Your task to perform on an android device: open app "Microsoft Authenticator" (install if not already installed) Image 0: 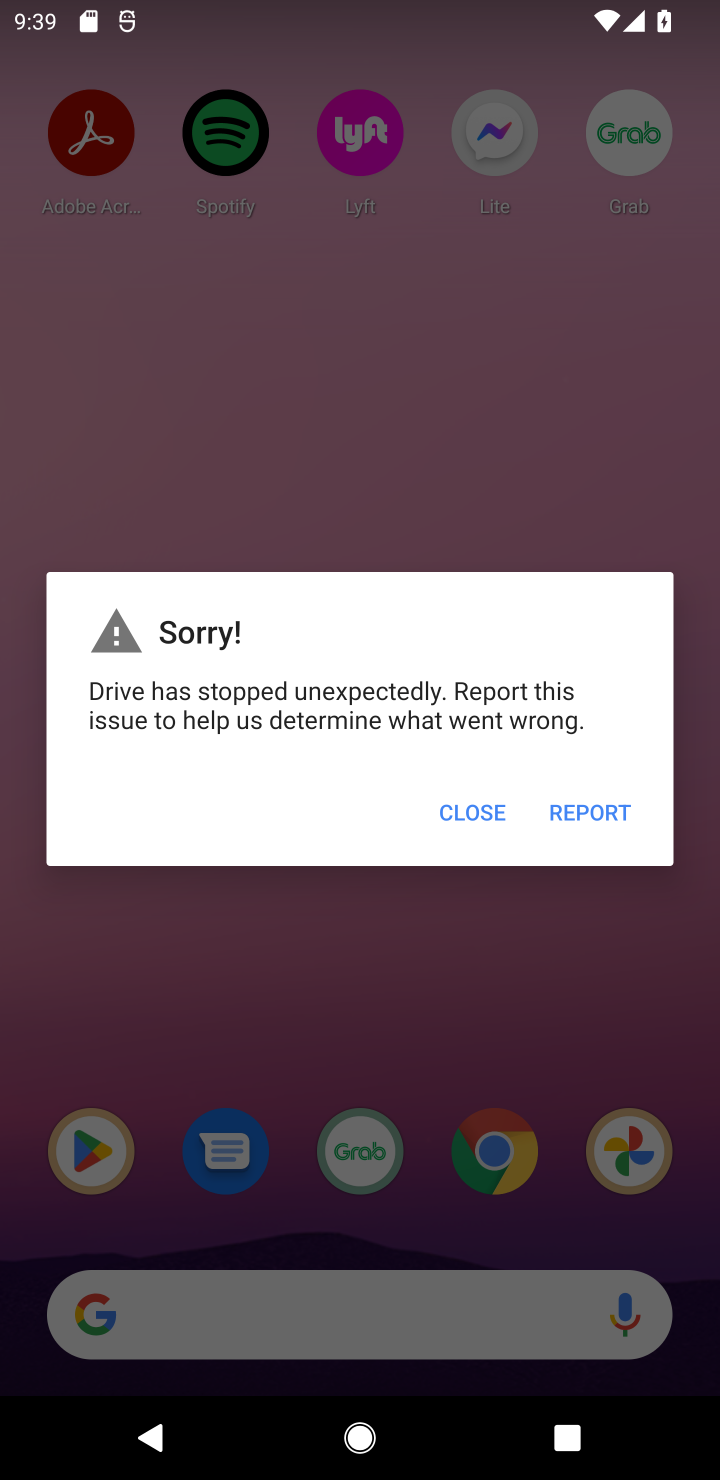
Step 0: press home button
Your task to perform on an android device: open app "Microsoft Authenticator" (install if not already installed) Image 1: 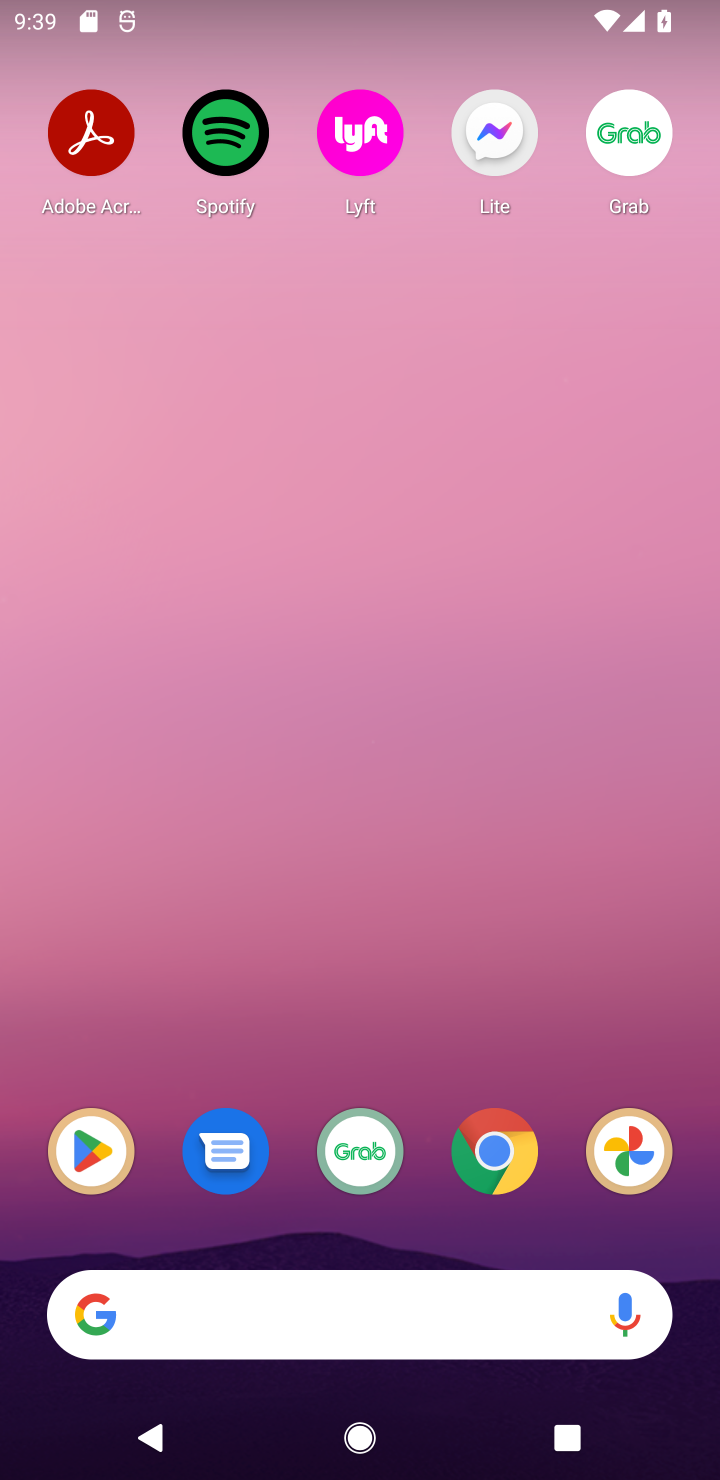
Step 1: drag from (479, 1265) to (473, 617)
Your task to perform on an android device: open app "Microsoft Authenticator" (install if not already installed) Image 2: 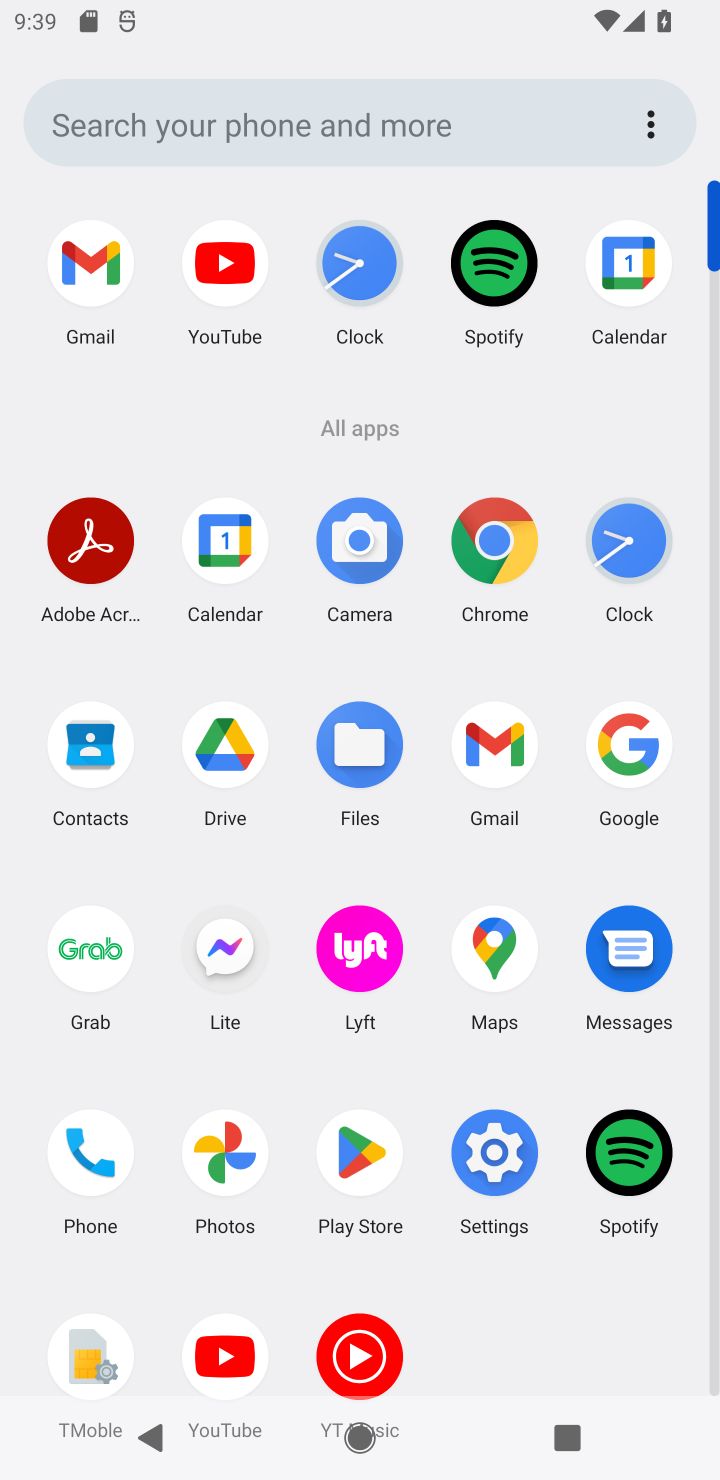
Step 2: click (346, 1164)
Your task to perform on an android device: open app "Microsoft Authenticator" (install if not already installed) Image 3: 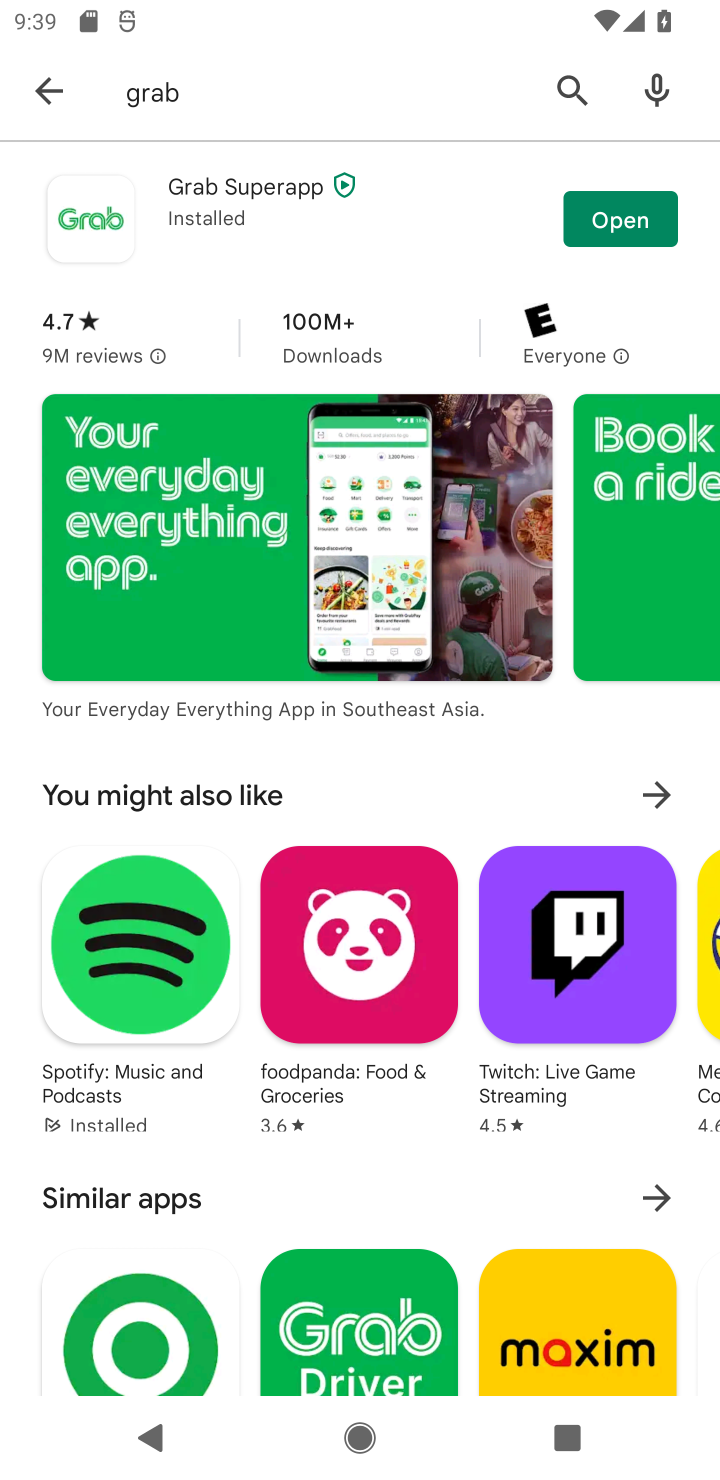
Step 3: click (558, 104)
Your task to perform on an android device: open app "Microsoft Authenticator" (install if not already installed) Image 4: 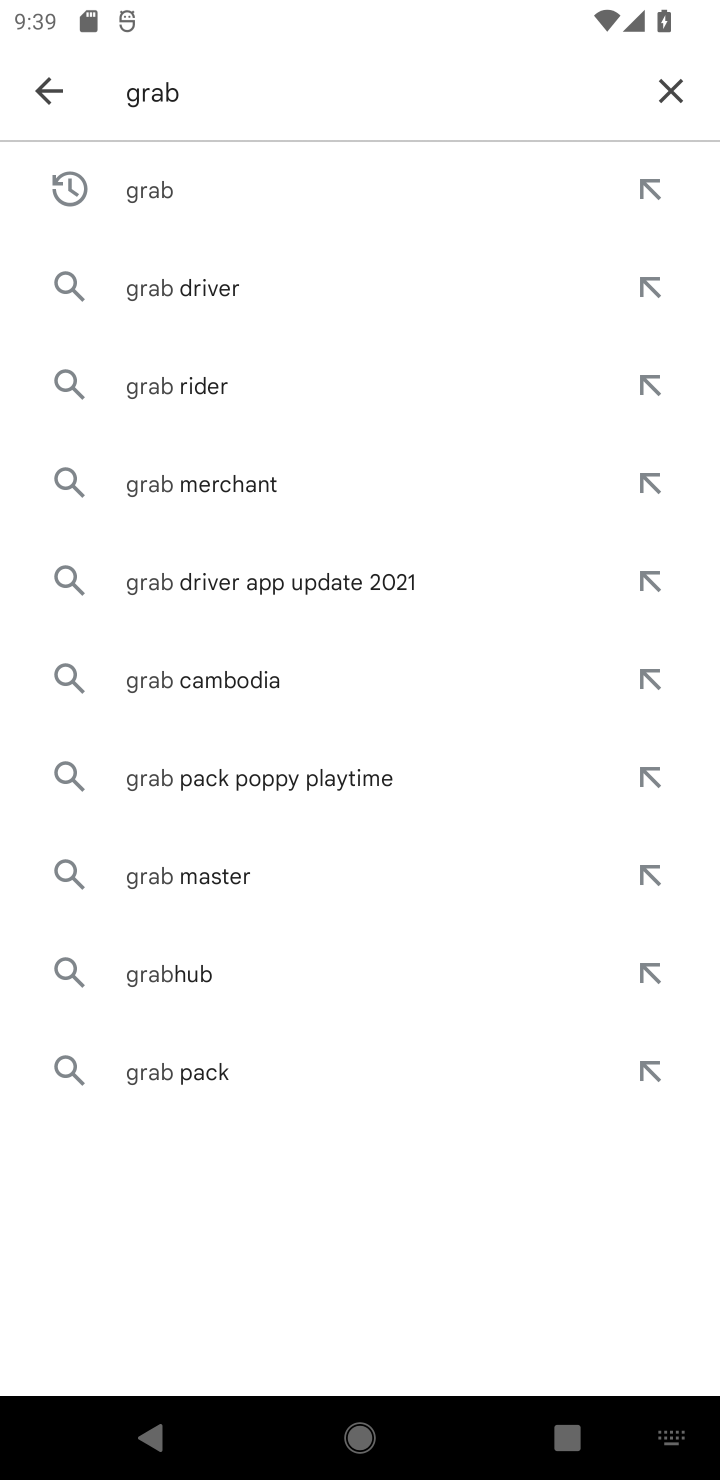
Step 4: click (655, 107)
Your task to perform on an android device: open app "Microsoft Authenticator" (install if not already installed) Image 5: 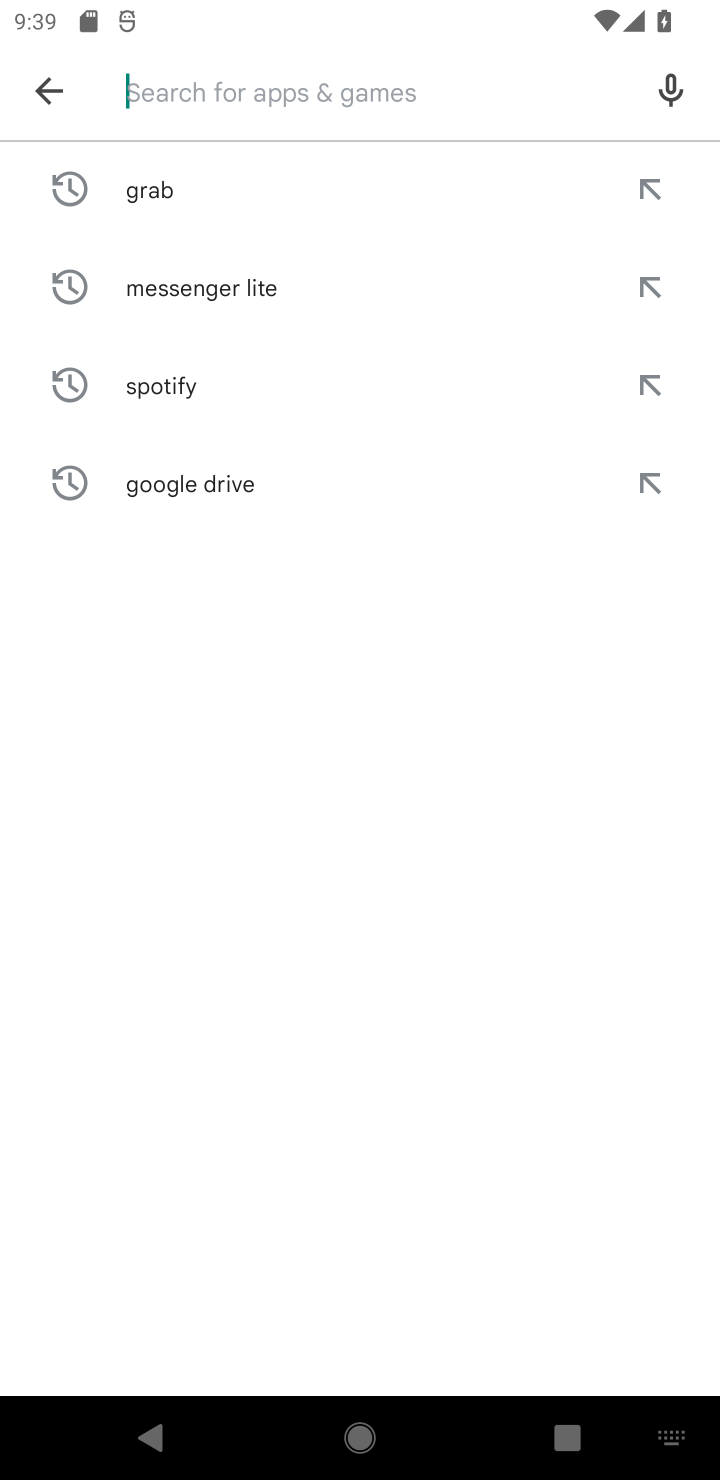
Step 5: type "Microsoft Authenticator"
Your task to perform on an android device: open app "Microsoft Authenticator" (install if not already installed) Image 6: 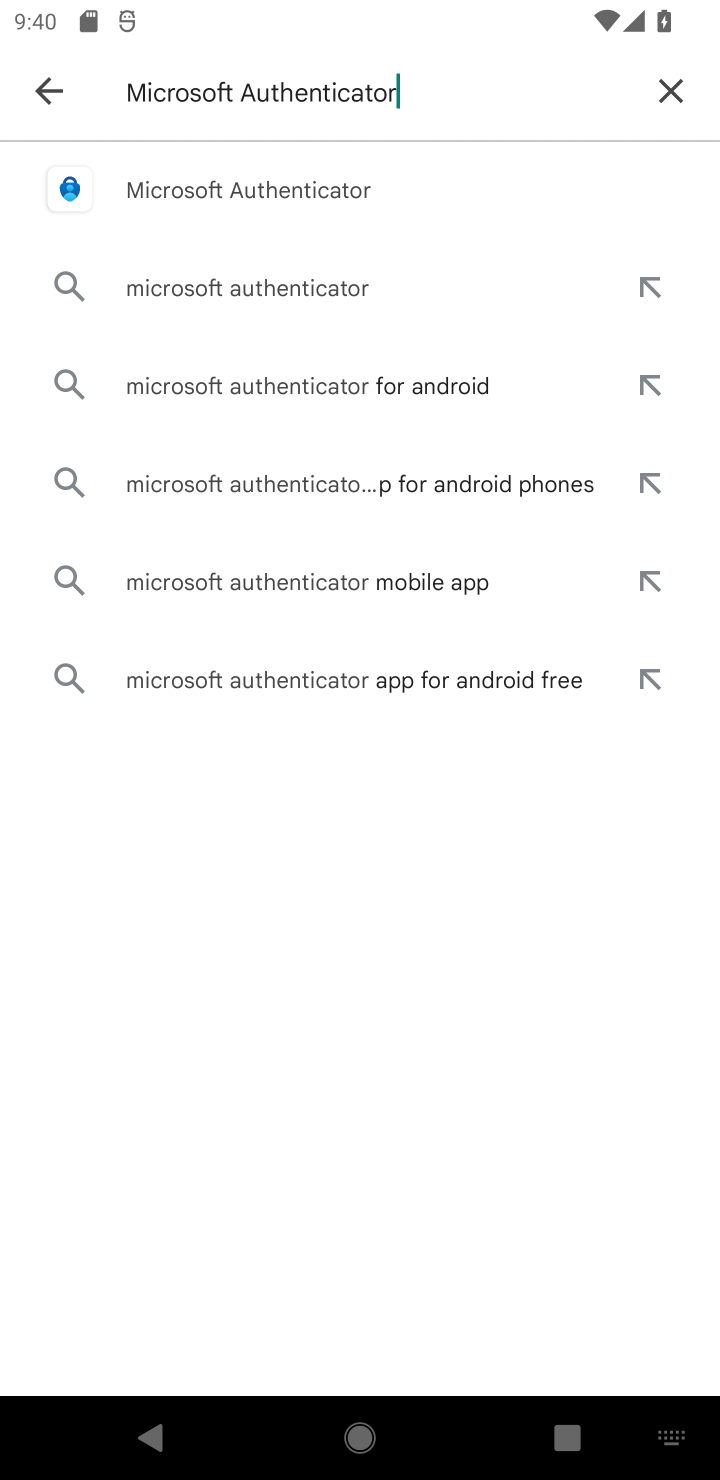
Step 6: click (280, 185)
Your task to perform on an android device: open app "Microsoft Authenticator" (install if not already installed) Image 7: 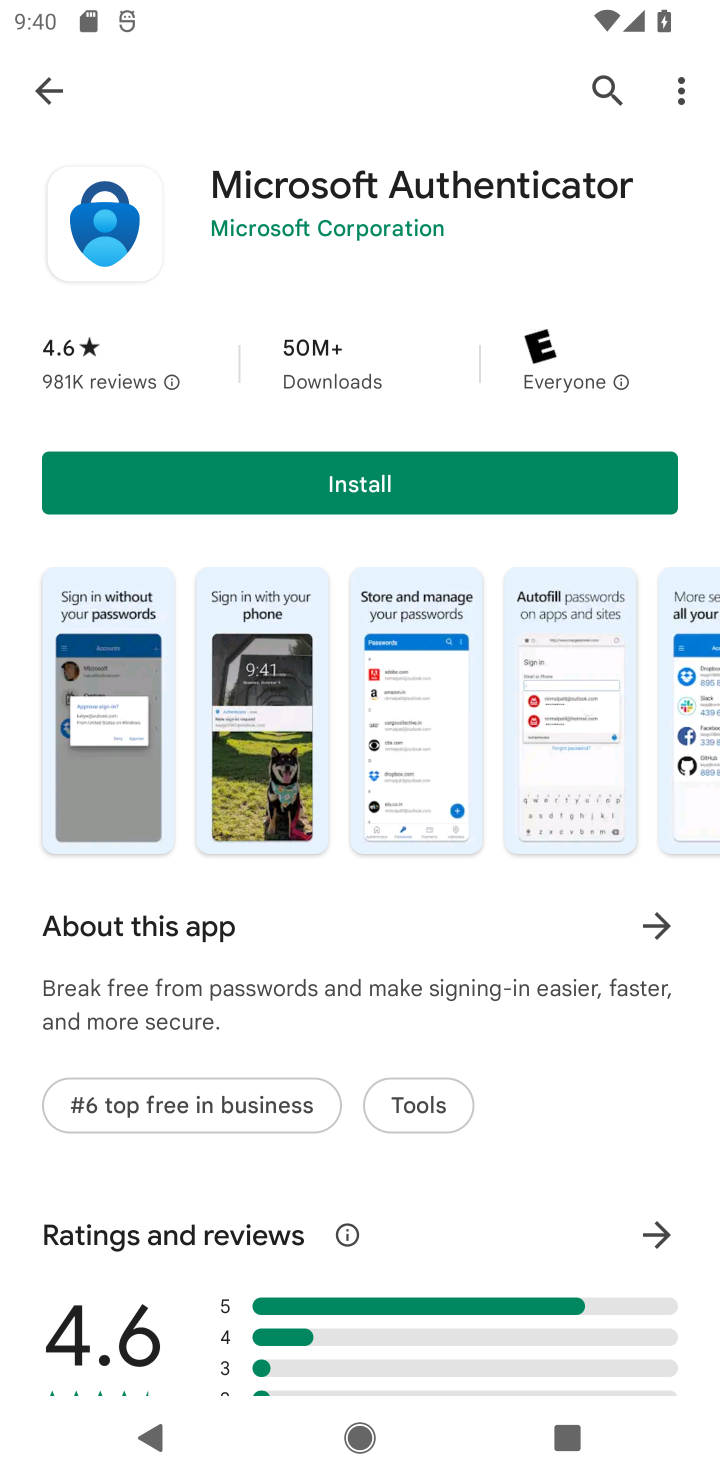
Step 7: click (309, 478)
Your task to perform on an android device: open app "Microsoft Authenticator" (install if not already installed) Image 8: 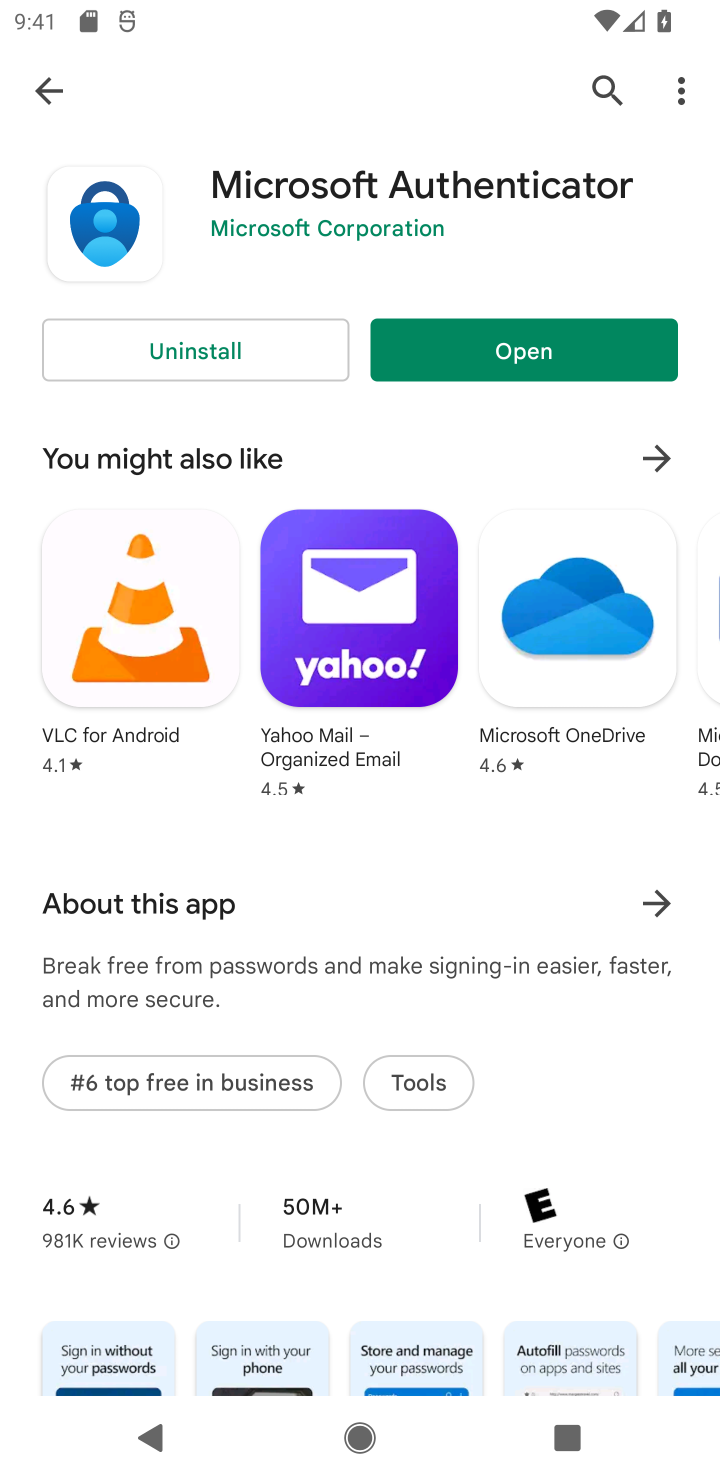
Step 8: click (551, 362)
Your task to perform on an android device: open app "Microsoft Authenticator" (install if not already installed) Image 9: 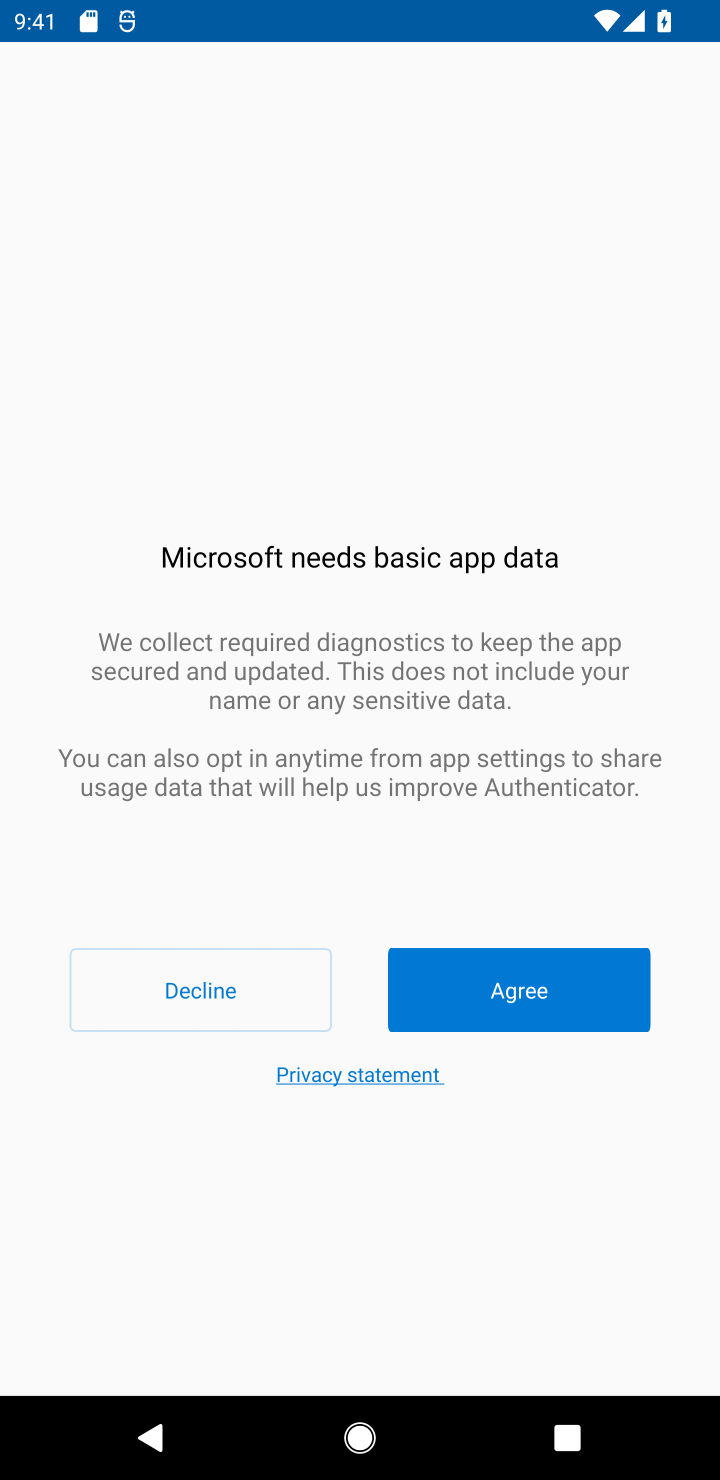
Step 9: task complete